Your task to perform on an android device: open the mobile data screen to see how much data has been used Image 0: 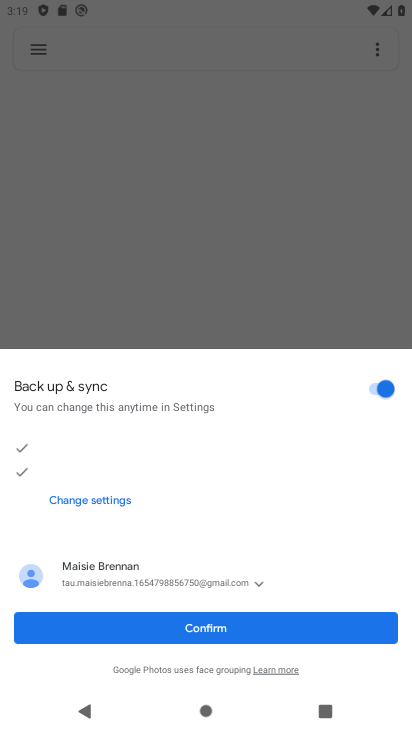
Step 0: press home button
Your task to perform on an android device: open the mobile data screen to see how much data has been used Image 1: 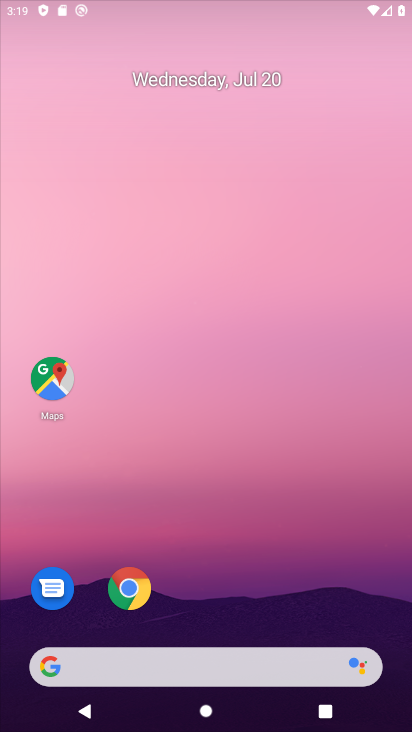
Step 1: drag from (320, 547) to (305, 140)
Your task to perform on an android device: open the mobile data screen to see how much data has been used Image 2: 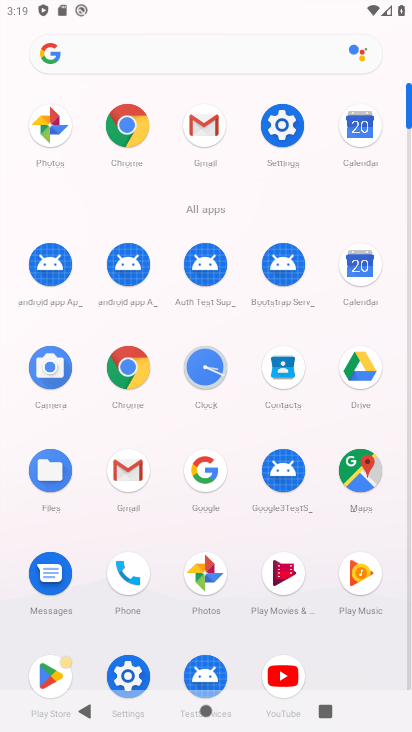
Step 2: click (294, 98)
Your task to perform on an android device: open the mobile data screen to see how much data has been used Image 3: 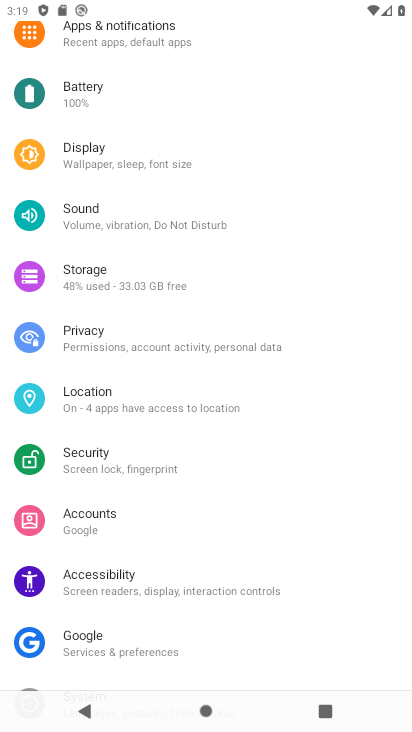
Step 3: drag from (215, 138) to (147, 374)
Your task to perform on an android device: open the mobile data screen to see how much data has been used Image 4: 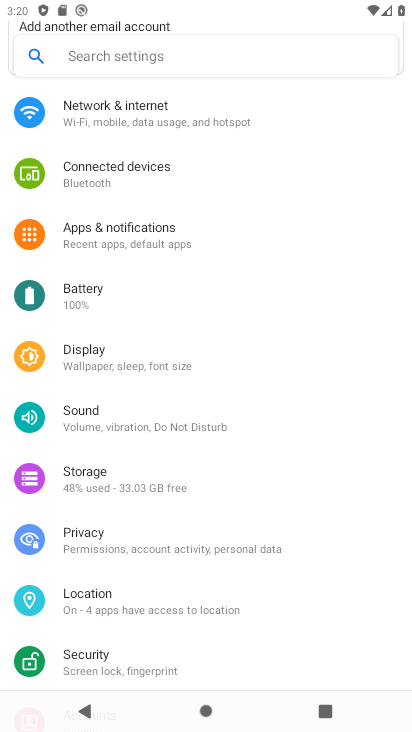
Step 4: click (136, 129)
Your task to perform on an android device: open the mobile data screen to see how much data has been used Image 5: 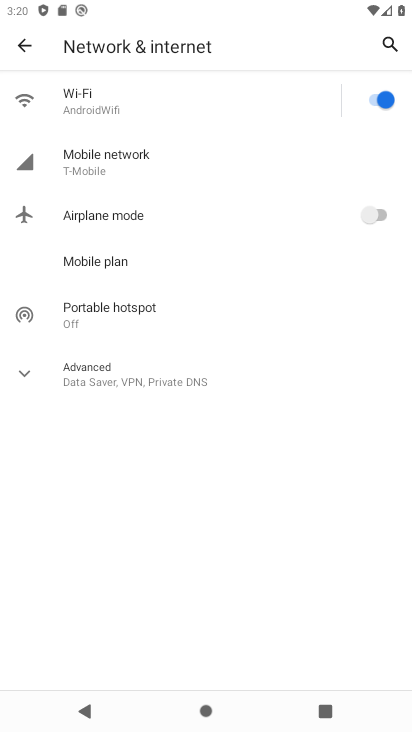
Step 5: click (144, 154)
Your task to perform on an android device: open the mobile data screen to see how much data has been used Image 6: 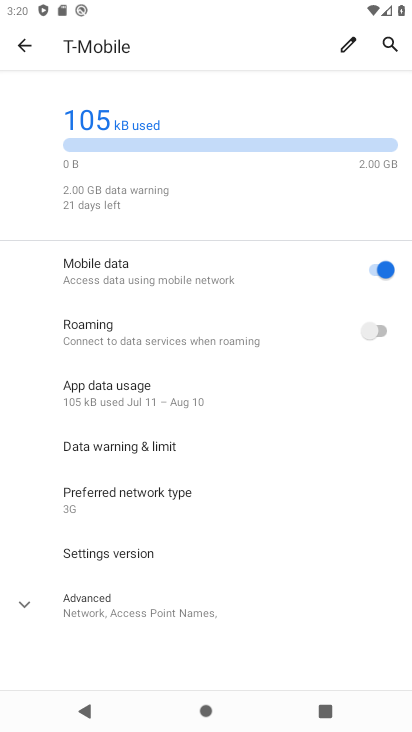
Step 6: task complete